Your task to perform on an android device: Is it going to rain today? Image 0: 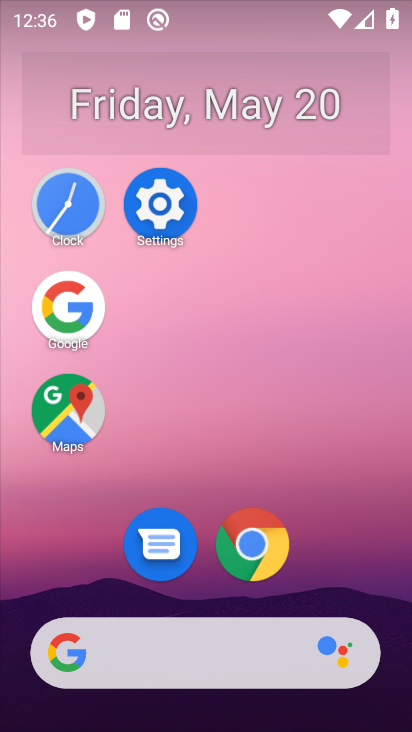
Step 0: click (60, 290)
Your task to perform on an android device: Is it going to rain today? Image 1: 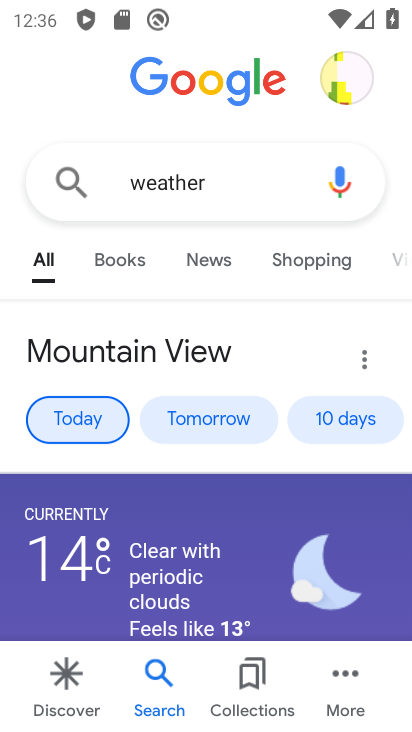
Step 1: task complete